Your task to perform on an android device: Open ESPN.com Image 0: 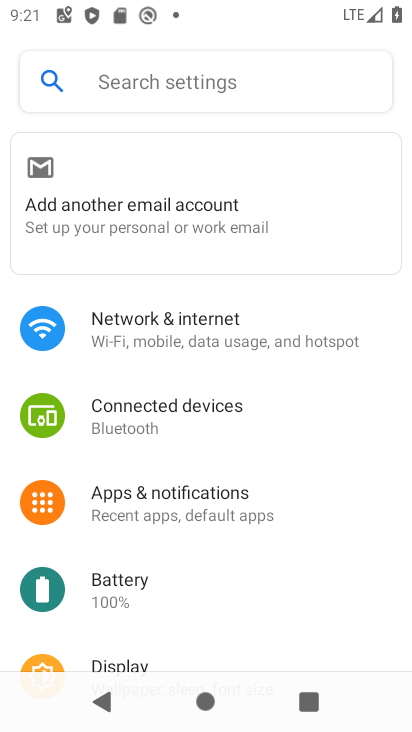
Step 0: press home button
Your task to perform on an android device: Open ESPN.com Image 1: 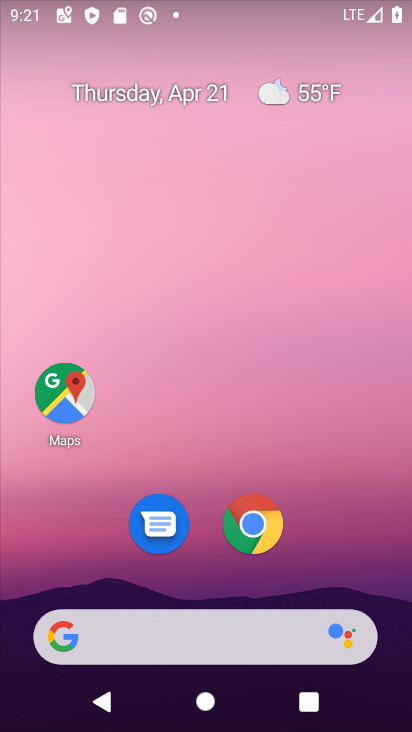
Step 1: click (223, 635)
Your task to perform on an android device: Open ESPN.com Image 2: 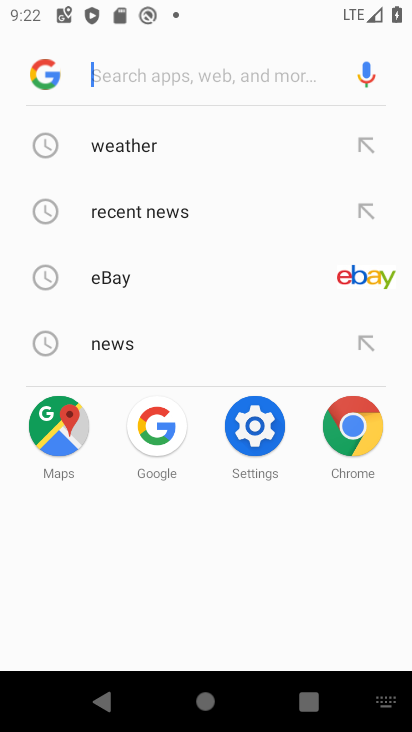
Step 2: type "ESPN.com"
Your task to perform on an android device: Open ESPN.com Image 3: 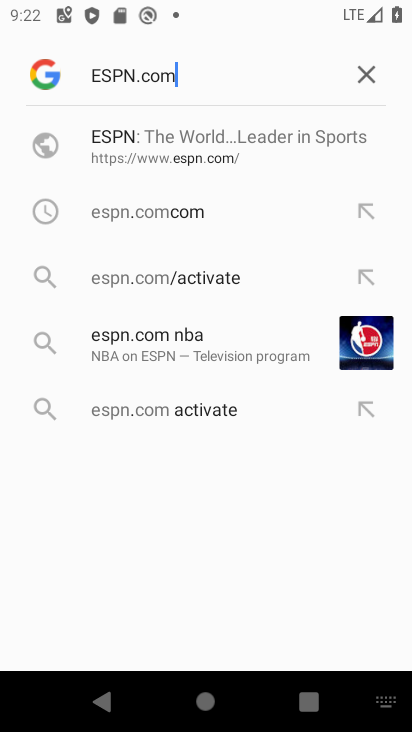
Step 3: click (282, 146)
Your task to perform on an android device: Open ESPN.com Image 4: 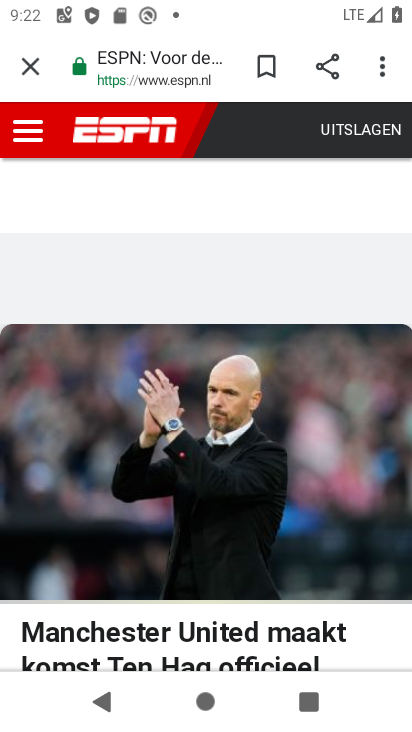
Step 4: task complete